Your task to perform on an android device: toggle show notifications on the lock screen Image 0: 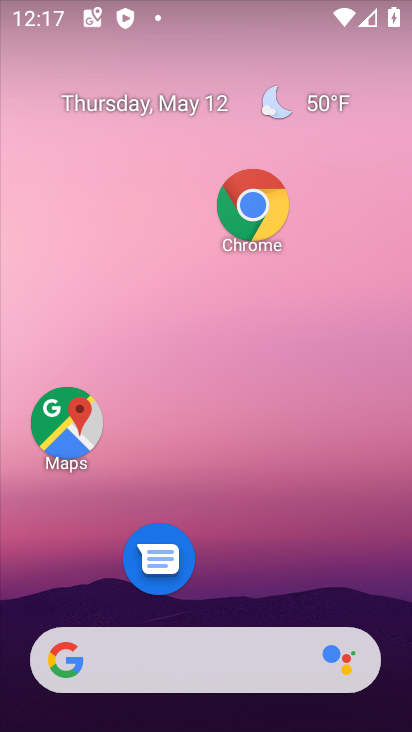
Step 0: drag from (286, 419) to (300, 152)
Your task to perform on an android device: toggle show notifications on the lock screen Image 1: 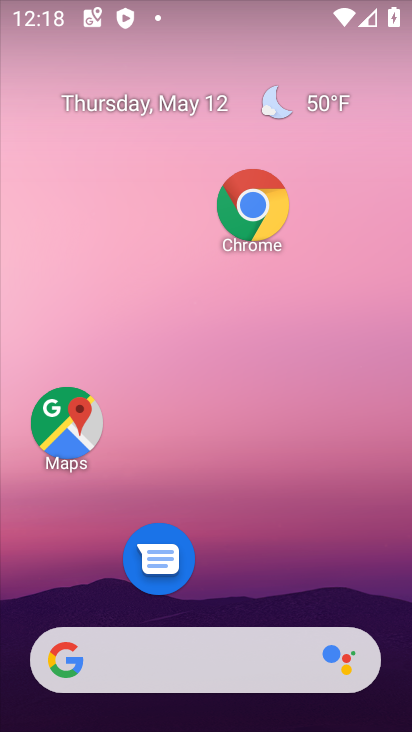
Step 1: drag from (295, 376) to (286, 133)
Your task to perform on an android device: toggle show notifications on the lock screen Image 2: 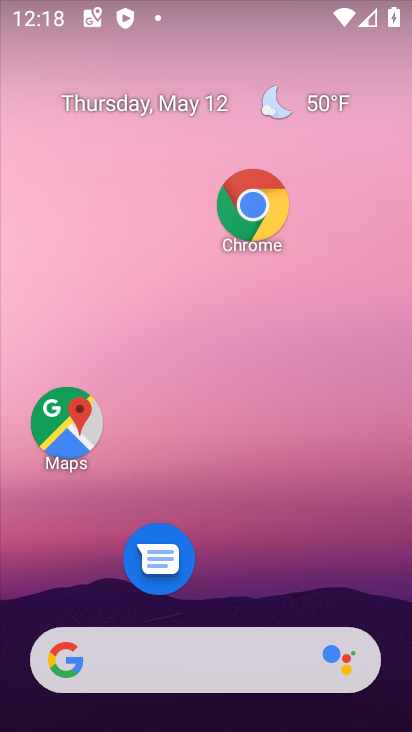
Step 2: drag from (253, 610) to (253, 49)
Your task to perform on an android device: toggle show notifications on the lock screen Image 3: 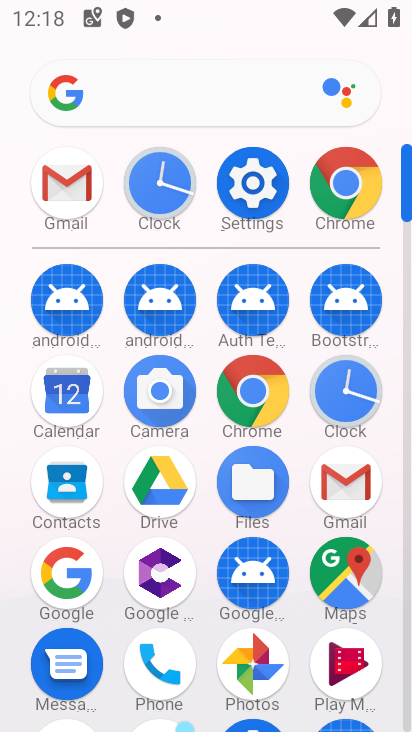
Step 3: drag from (231, 641) to (237, 335)
Your task to perform on an android device: toggle show notifications on the lock screen Image 4: 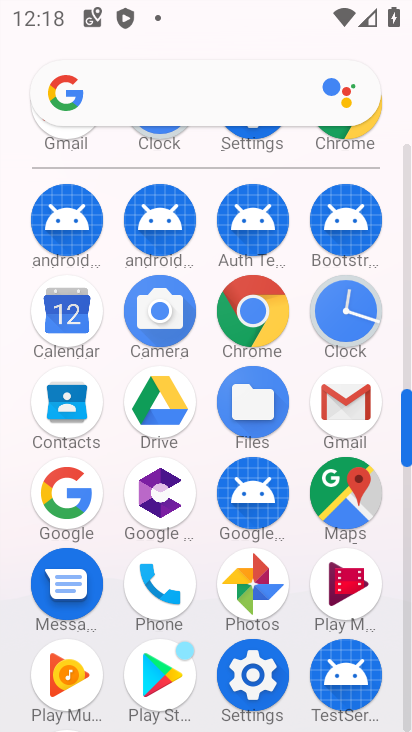
Step 4: click (271, 669)
Your task to perform on an android device: toggle show notifications on the lock screen Image 5: 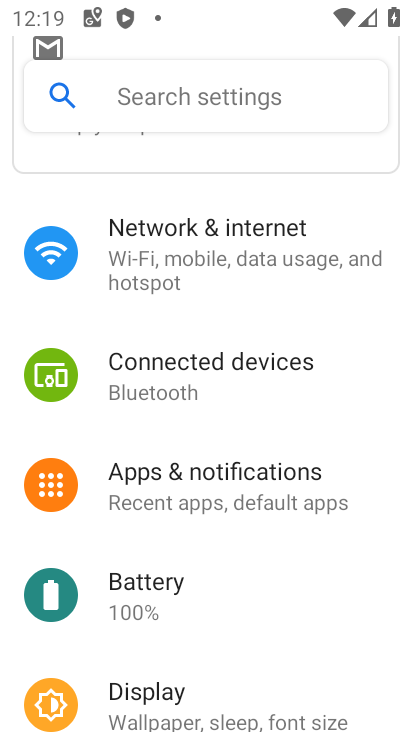
Step 5: drag from (253, 602) to (312, 418)
Your task to perform on an android device: toggle show notifications on the lock screen Image 6: 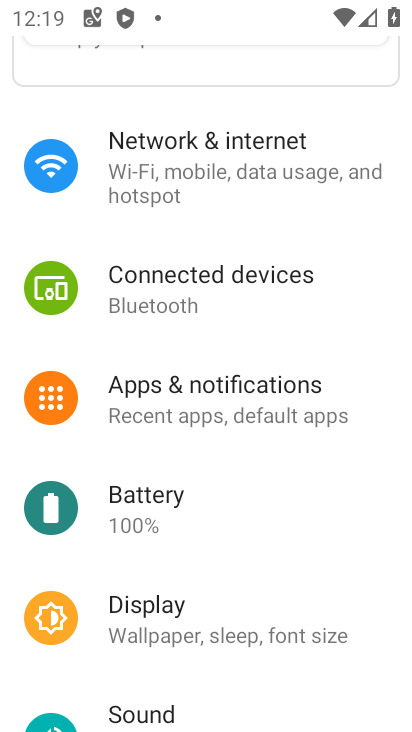
Step 6: drag from (316, 331) to (313, 700)
Your task to perform on an android device: toggle show notifications on the lock screen Image 7: 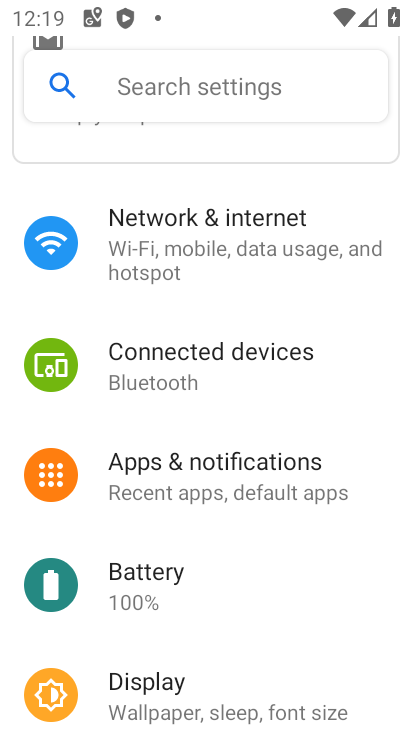
Step 7: click (202, 473)
Your task to perform on an android device: toggle show notifications on the lock screen Image 8: 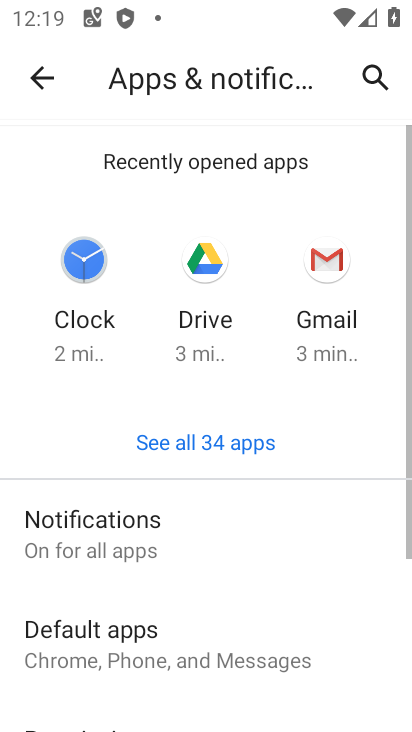
Step 8: drag from (145, 613) to (162, 326)
Your task to perform on an android device: toggle show notifications on the lock screen Image 9: 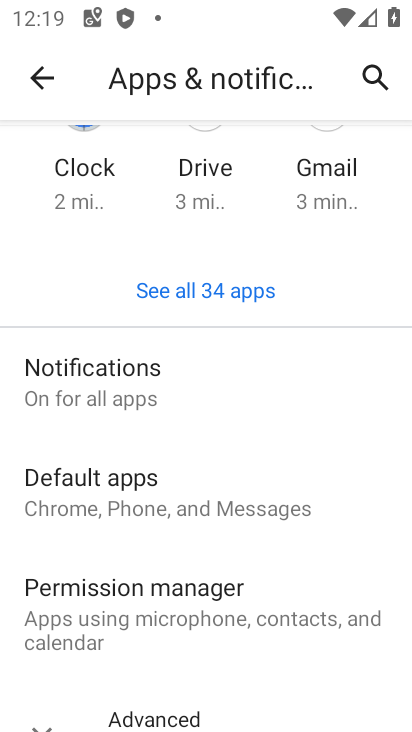
Step 9: drag from (164, 676) to (240, 285)
Your task to perform on an android device: toggle show notifications on the lock screen Image 10: 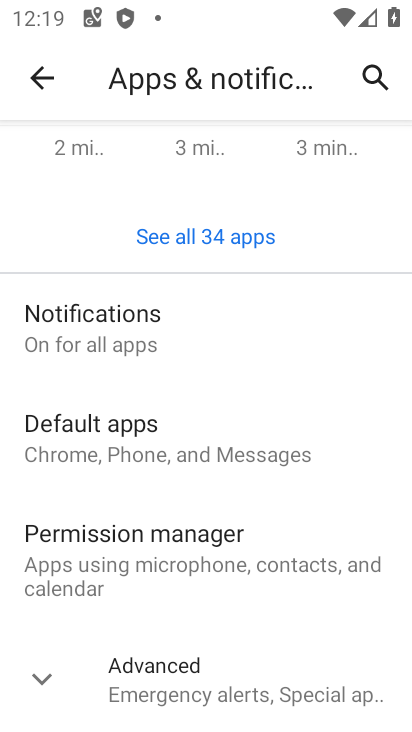
Step 10: click (166, 691)
Your task to perform on an android device: toggle show notifications on the lock screen Image 11: 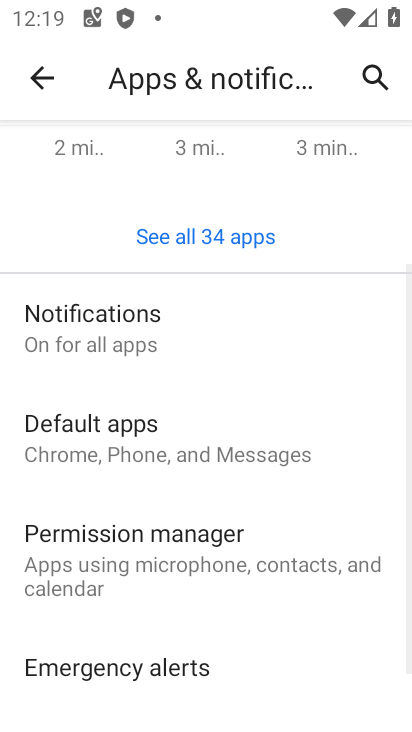
Step 11: click (139, 328)
Your task to perform on an android device: toggle show notifications on the lock screen Image 12: 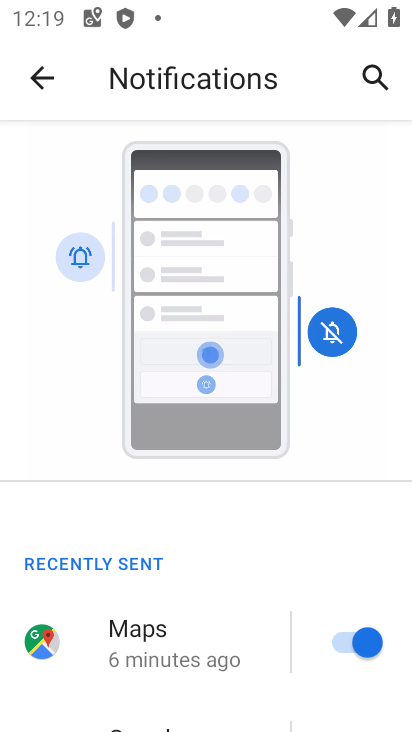
Step 12: drag from (177, 663) to (222, 363)
Your task to perform on an android device: toggle show notifications on the lock screen Image 13: 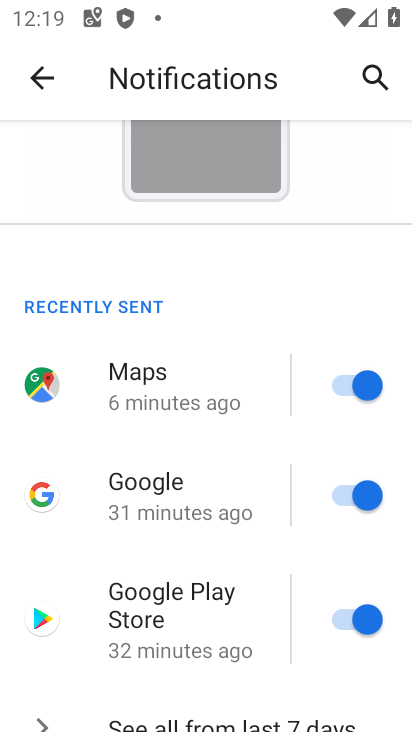
Step 13: drag from (203, 637) to (234, 171)
Your task to perform on an android device: toggle show notifications on the lock screen Image 14: 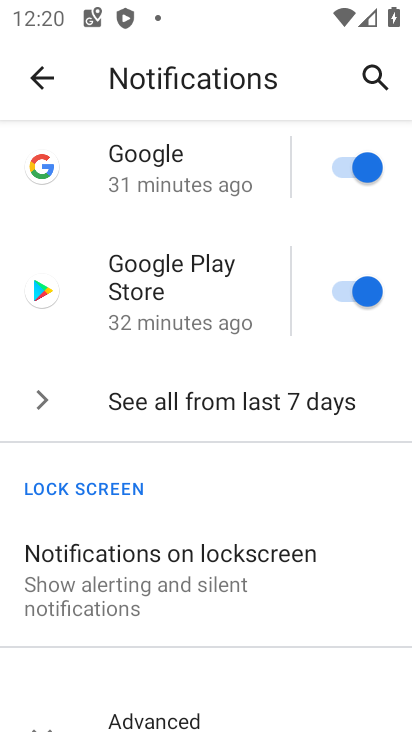
Step 14: click (176, 579)
Your task to perform on an android device: toggle show notifications on the lock screen Image 15: 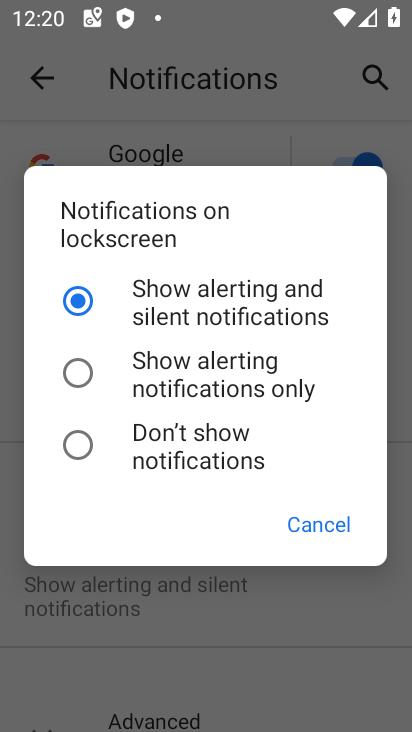
Step 15: click (90, 451)
Your task to perform on an android device: toggle show notifications on the lock screen Image 16: 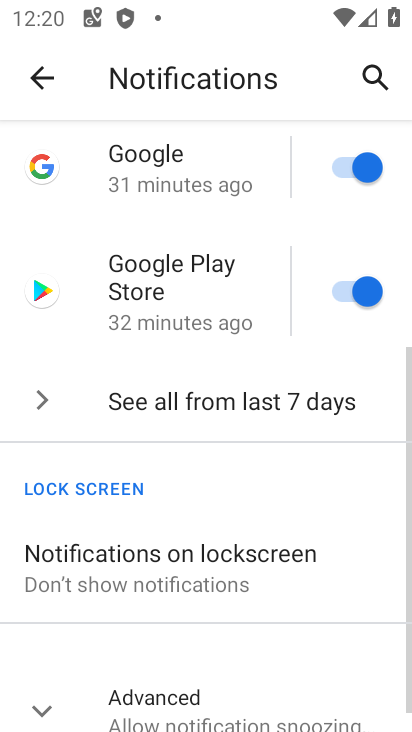
Step 16: task complete